Your task to perform on an android device: What's the weather going to be this weekend? Image 0: 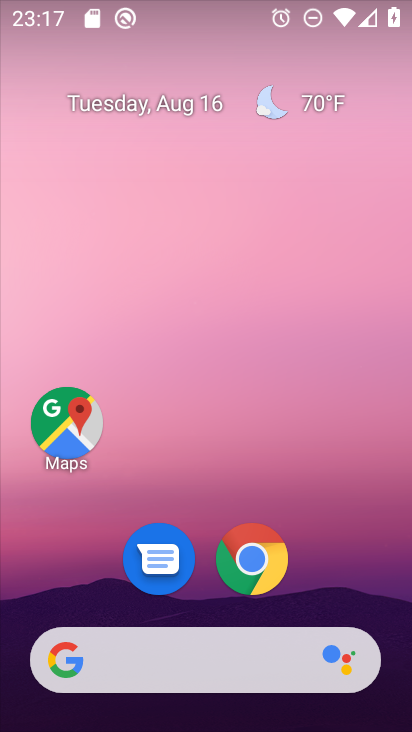
Step 0: drag from (154, 660) to (179, 98)
Your task to perform on an android device: What's the weather going to be this weekend? Image 1: 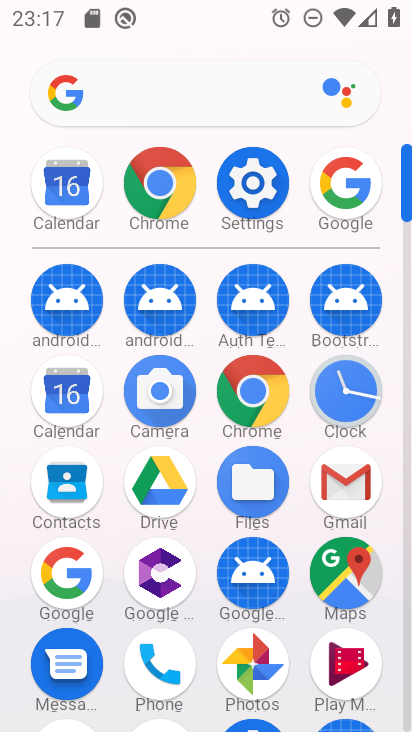
Step 1: click (339, 182)
Your task to perform on an android device: What's the weather going to be this weekend? Image 2: 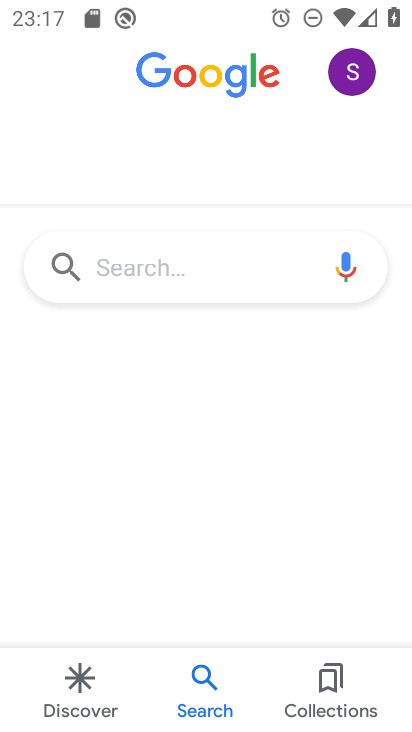
Step 2: click (216, 278)
Your task to perform on an android device: What's the weather going to be this weekend? Image 3: 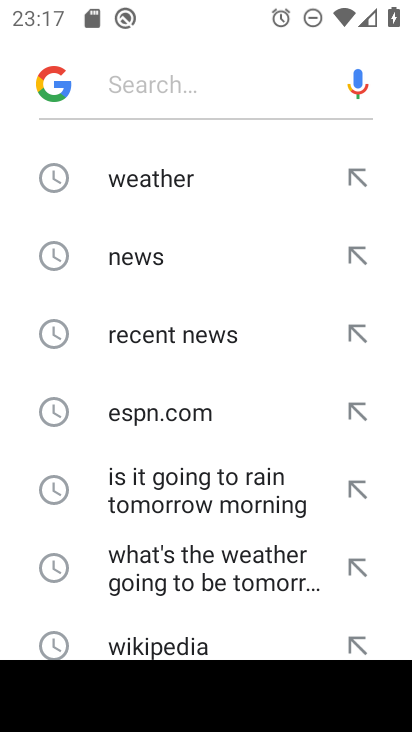
Step 3: type "What's the weather going to be this weekend?"
Your task to perform on an android device: What's the weather going to be this weekend? Image 4: 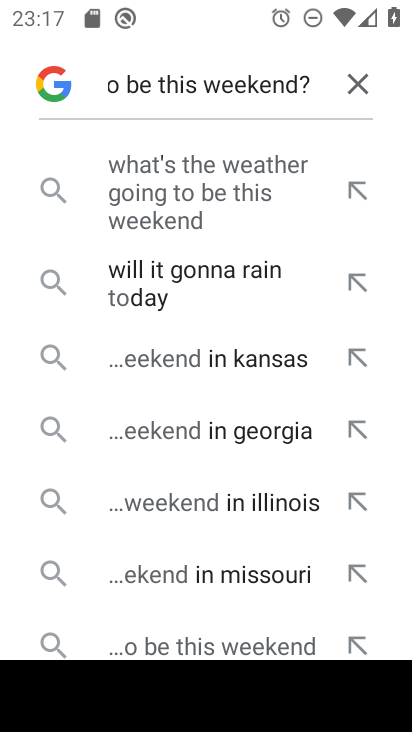
Step 4: click (175, 174)
Your task to perform on an android device: What's the weather going to be this weekend? Image 5: 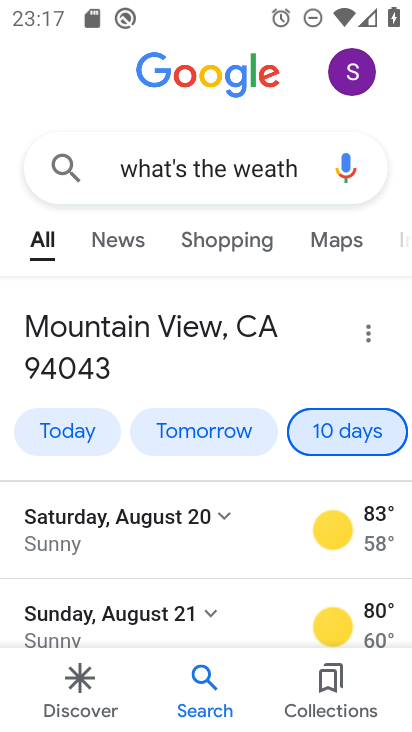
Step 5: task complete